Your task to perform on an android device: change your default location settings in chrome Image 0: 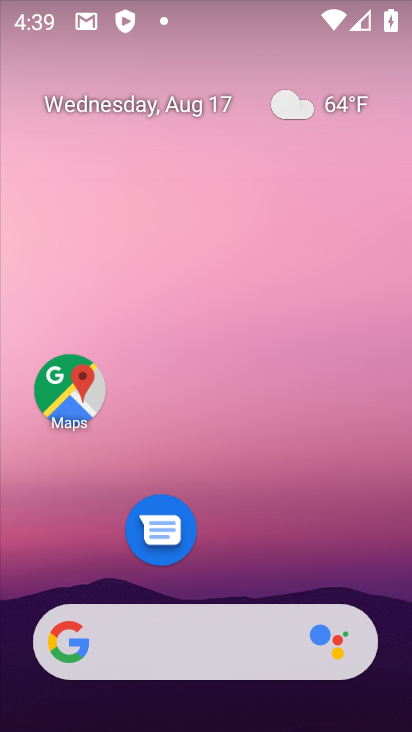
Step 0: drag from (186, 584) to (183, 224)
Your task to perform on an android device: change your default location settings in chrome Image 1: 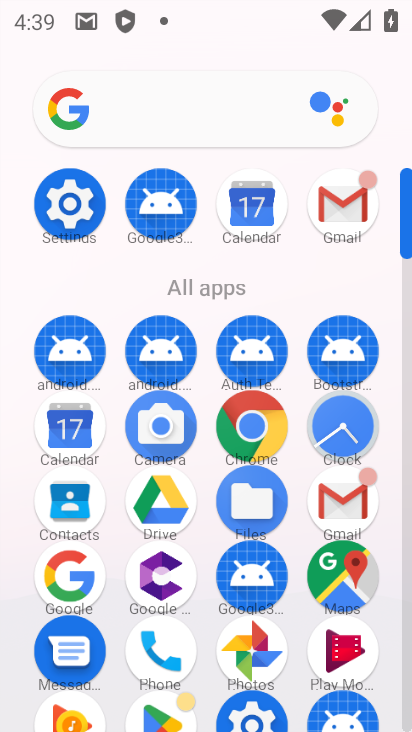
Step 1: click (249, 423)
Your task to perform on an android device: change your default location settings in chrome Image 2: 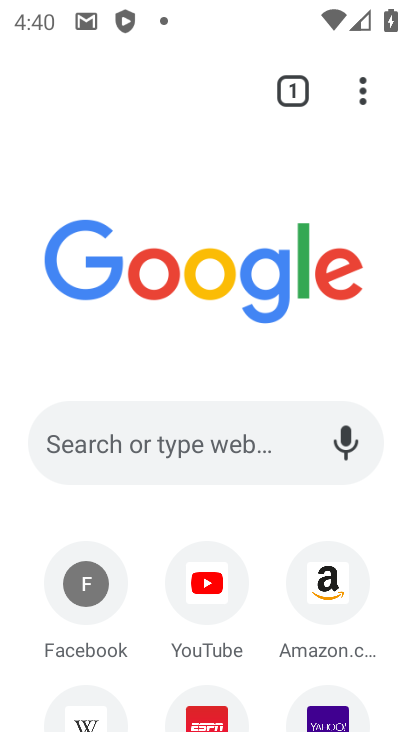
Step 2: click (362, 86)
Your task to perform on an android device: change your default location settings in chrome Image 3: 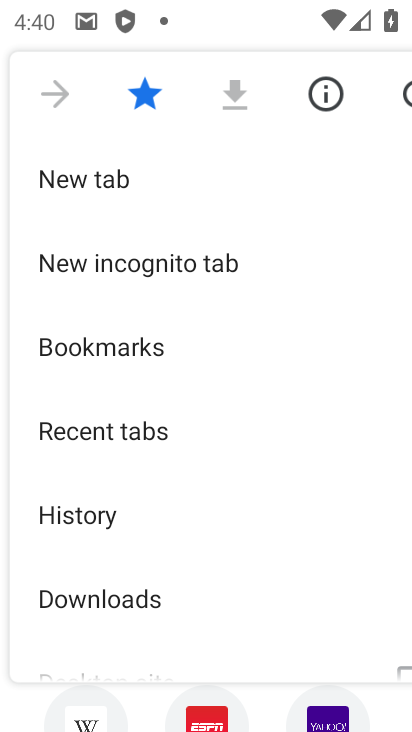
Step 3: drag from (125, 536) to (147, 296)
Your task to perform on an android device: change your default location settings in chrome Image 4: 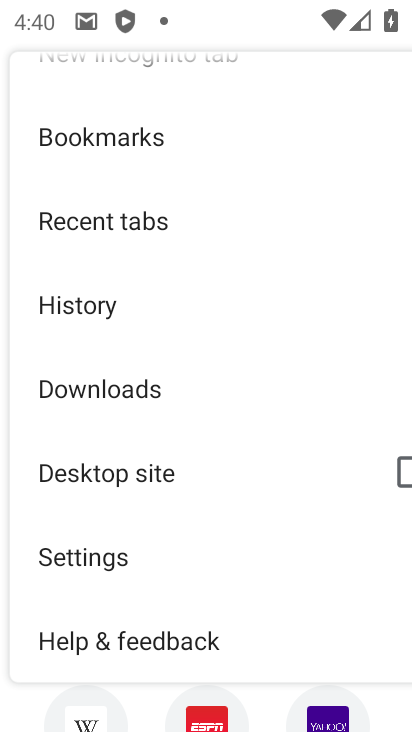
Step 4: click (96, 565)
Your task to perform on an android device: change your default location settings in chrome Image 5: 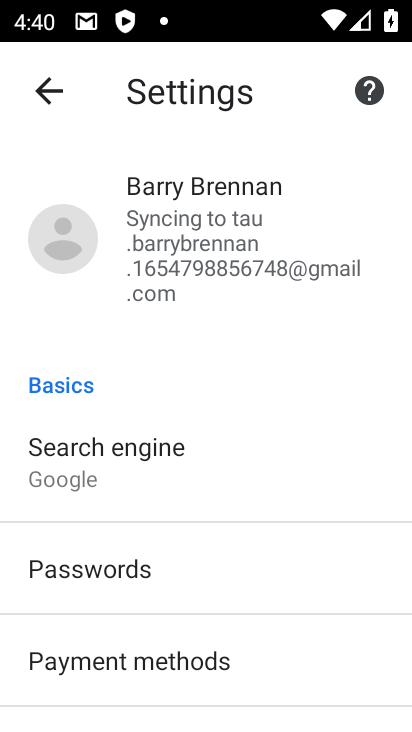
Step 5: click (247, 108)
Your task to perform on an android device: change your default location settings in chrome Image 6: 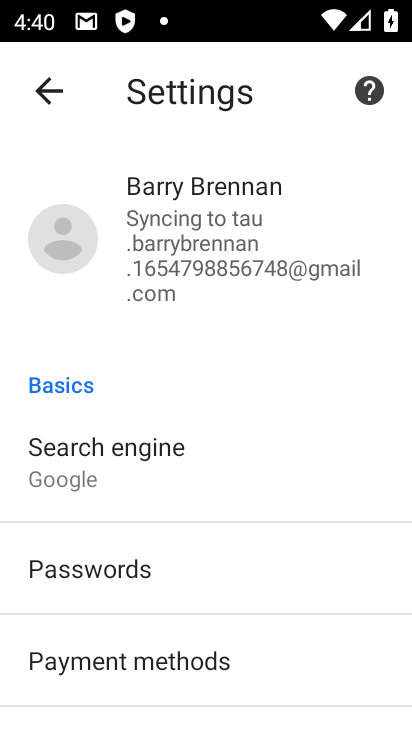
Step 6: drag from (145, 609) to (235, 21)
Your task to perform on an android device: change your default location settings in chrome Image 7: 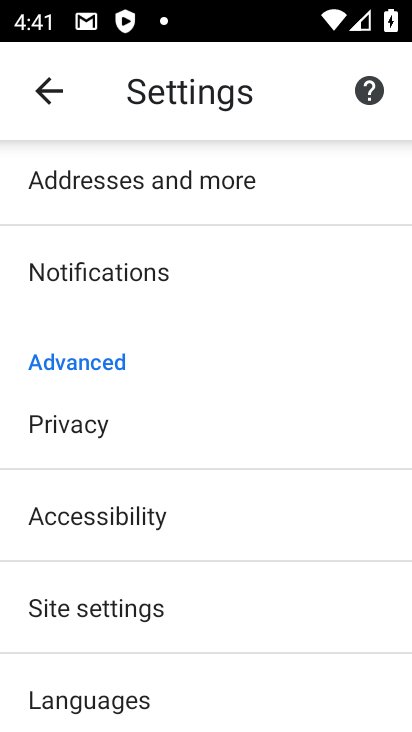
Step 7: click (93, 610)
Your task to perform on an android device: change your default location settings in chrome Image 8: 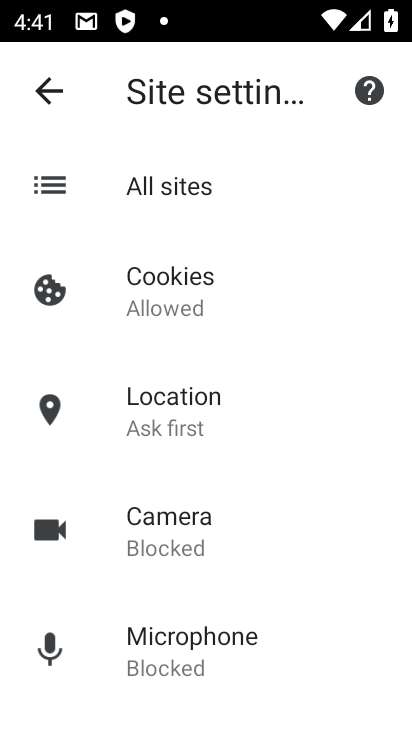
Step 8: drag from (229, 630) to (204, 292)
Your task to perform on an android device: change your default location settings in chrome Image 9: 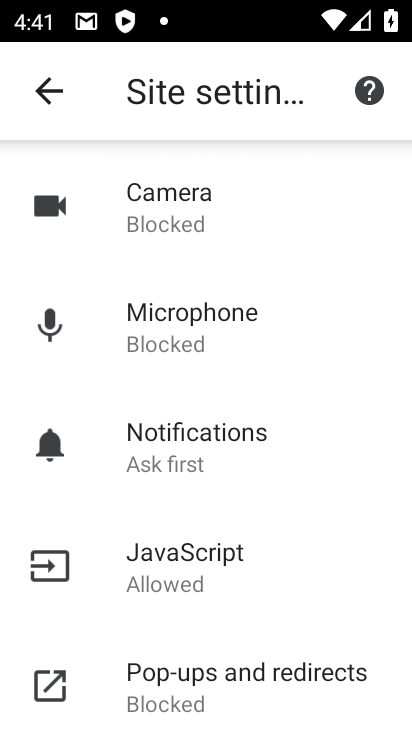
Step 9: click (176, 367)
Your task to perform on an android device: change your default location settings in chrome Image 10: 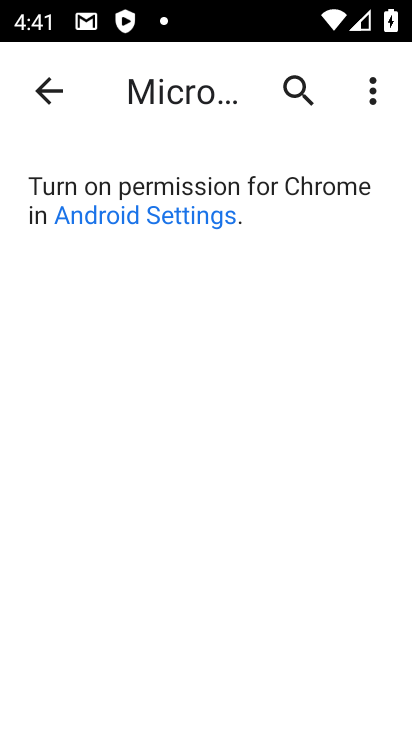
Step 10: press back button
Your task to perform on an android device: change your default location settings in chrome Image 11: 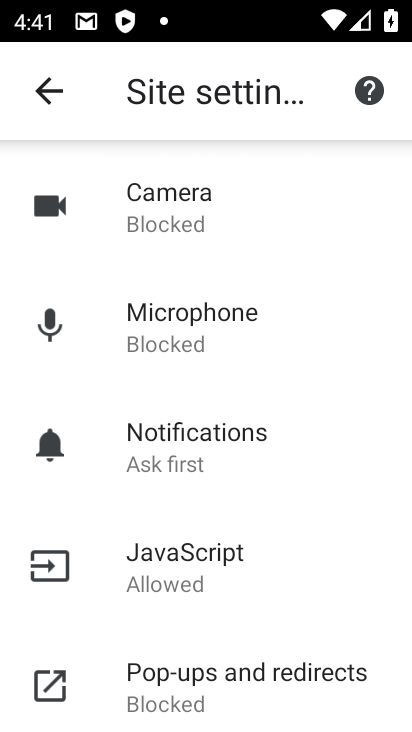
Step 11: drag from (241, 301) to (226, 670)
Your task to perform on an android device: change your default location settings in chrome Image 12: 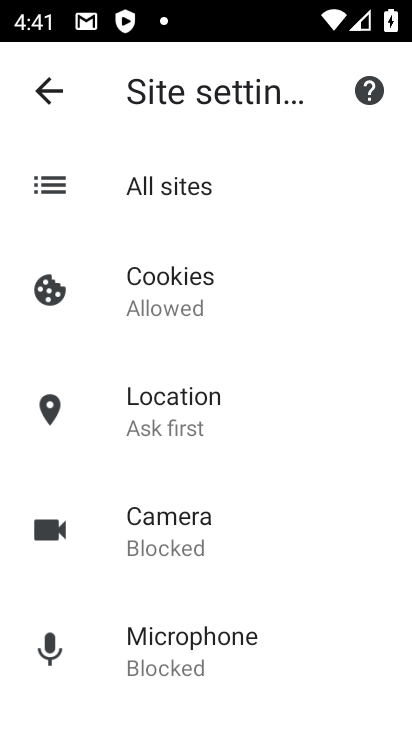
Step 12: click (183, 410)
Your task to perform on an android device: change your default location settings in chrome Image 13: 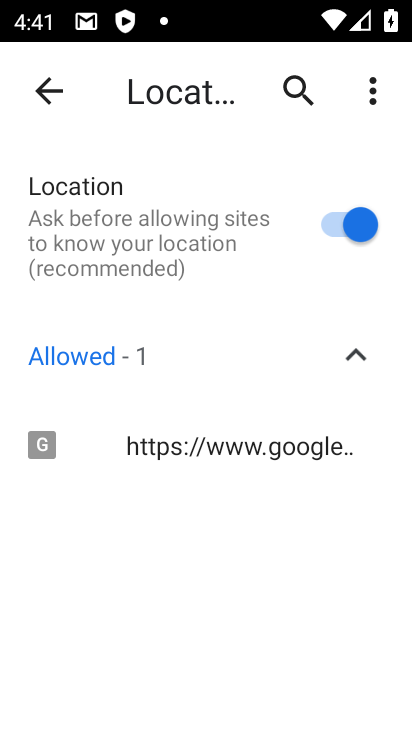
Step 13: click (337, 219)
Your task to perform on an android device: change your default location settings in chrome Image 14: 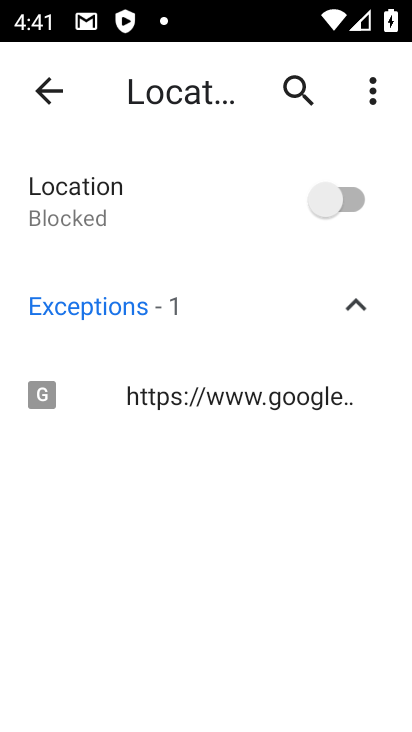
Step 14: task complete